Your task to perform on an android device: search for starred emails in the gmail app Image 0: 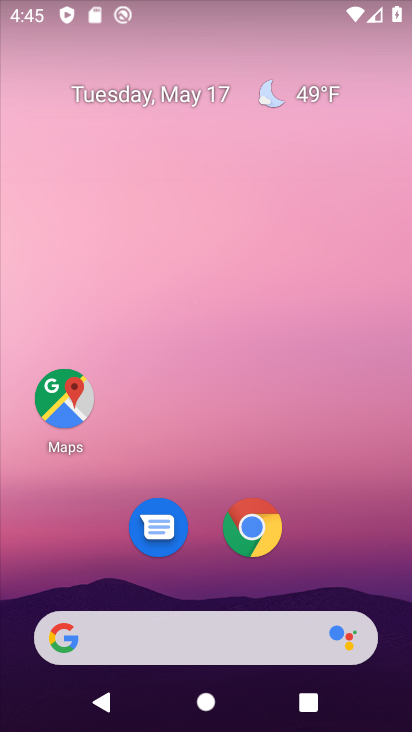
Step 0: drag from (323, 476) to (254, 22)
Your task to perform on an android device: search for starred emails in the gmail app Image 1: 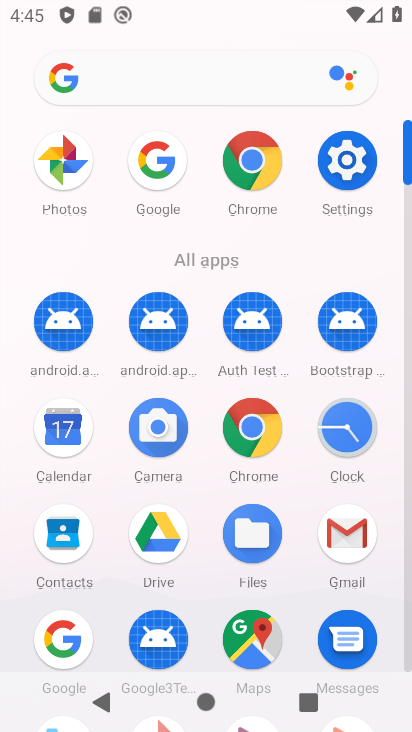
Step 1: drag from (12, 423) to (9, 197)
Your task to perform on an android device: search for starred emails in the gmail app Image 2: 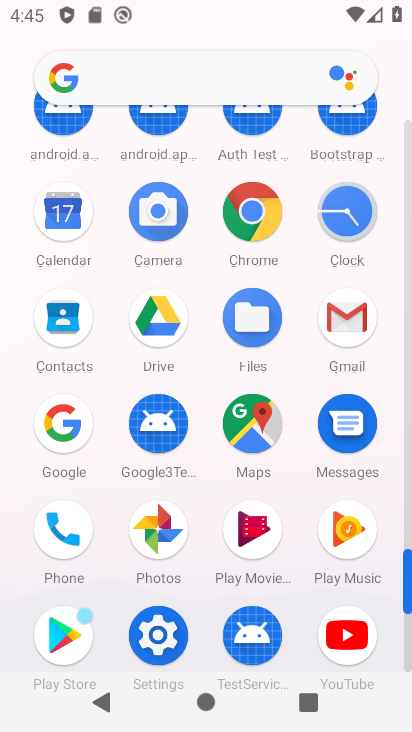
Step 2: drag from (20, 580) to (1, 182)
Your task to perform on an android device: search for starred emails in the gmail app Image 3: 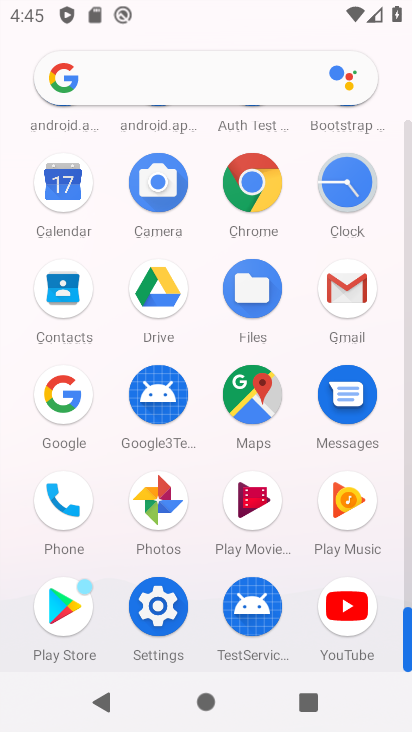
Step 3: drag from (21, 561) to (19, 197)
Your task to perform on an android device: search for starred emails in the gmail app Image 4: 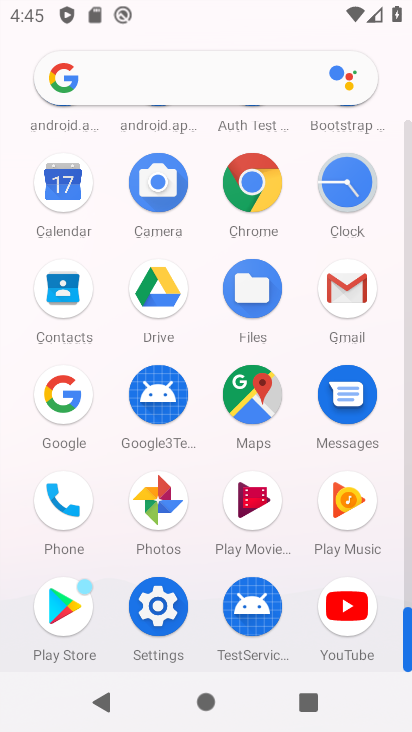
Step 4: click (347, 279)
Your task to perform on an android device: search for starred emails in the gmail app Image 5: 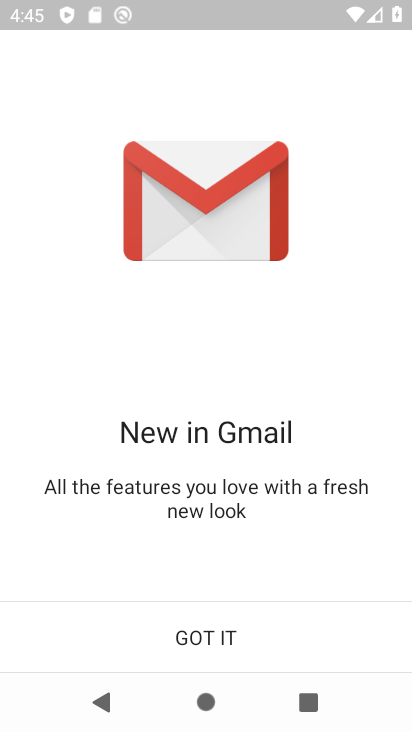
Step 5: click (223, 635)
Your task to perform on an android device: search for starred emails in the gmail app Image 6: 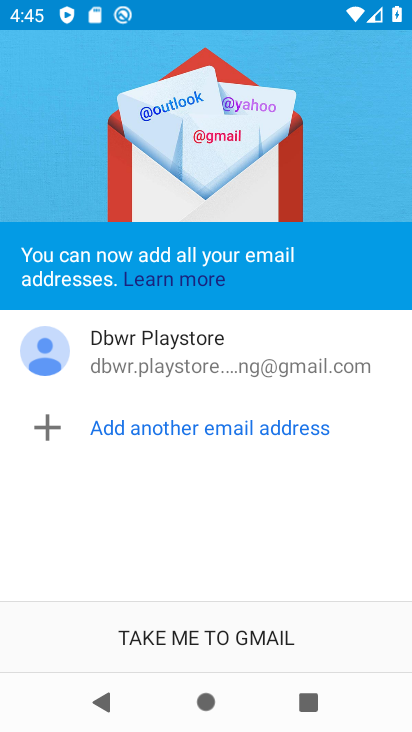
Step 6: click (223, 635)
Your task to perform on an android device: search for starred emails in the gmail app Image 7: 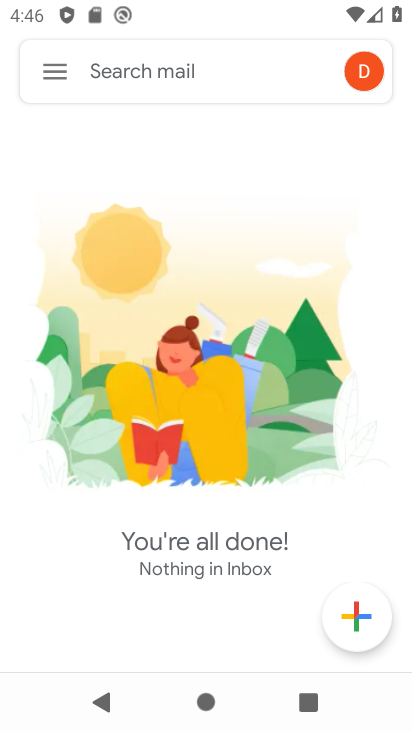
Step 7: click (50, 68)
Your task to perform on an android device: search for starred emails in the gmail app Image 8: 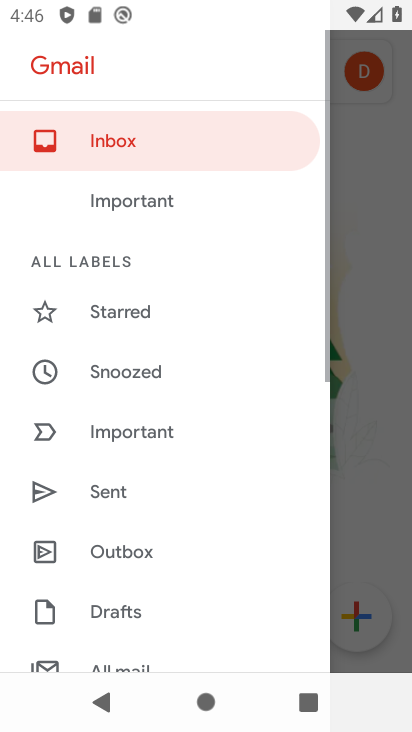
Step 8: click (154, 305)
Your task to perform on an android device: search for starred emails in the gmail app Image 9: 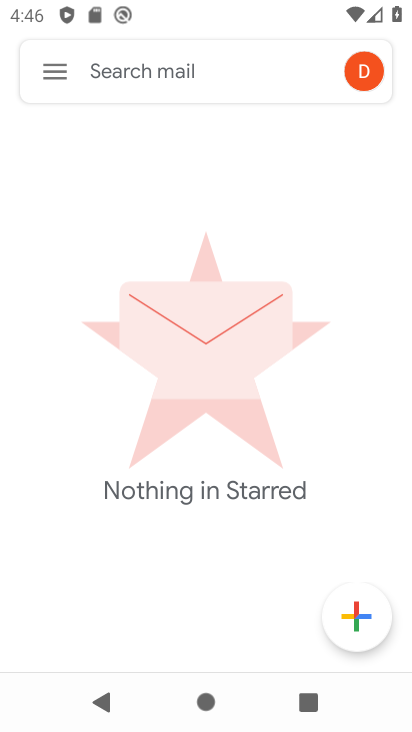
Step 9: click (53, 77)
Your task to perform on an android device: search for starred emails in the gmail app Image 10: 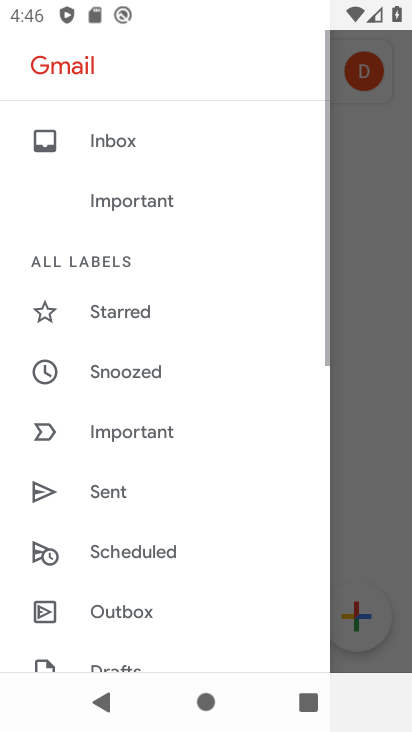
Step 10: click (364, 242)
Your task to perform on an android device: search for starred emails in the gmail app Image 11: 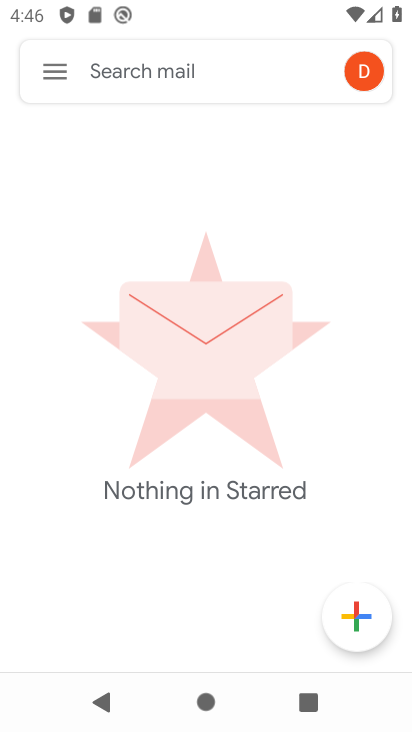
Step 11: task complete